Your task to perform on an android device: What's on my calendar tomorrow? Image 0: 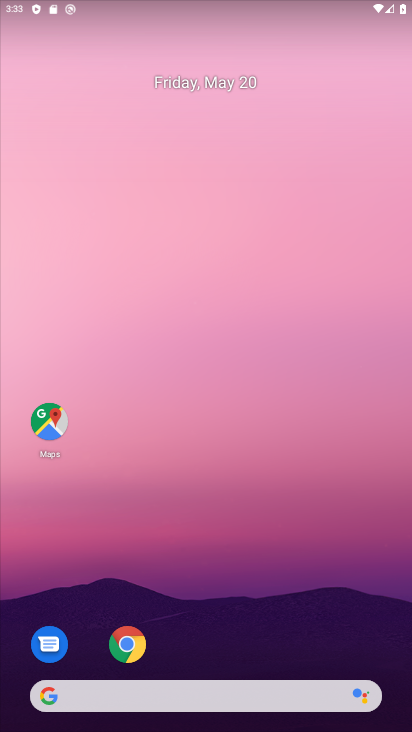
Step 0: drag from (323, 420) to (361, 170)
Your task to perform on an android device: What's on my calendar tomorrow? Image 1: 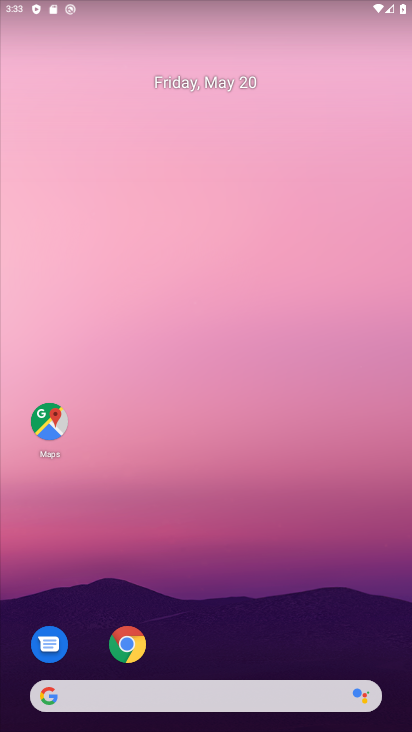
Step 1: drag from (241, 618) to (305, 148)
Your task to perform on an android device: What's on my calendar tomorrow? Image 2: 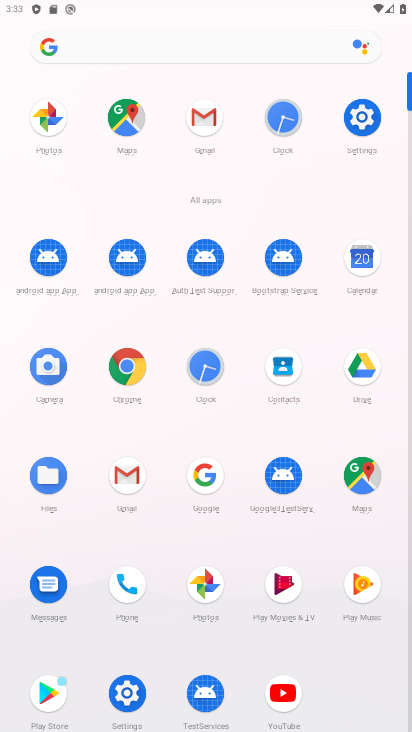
Step 2: click (364, 258)
Your task to perform on an android device: What's on my calendar tomorrow? Image 3: 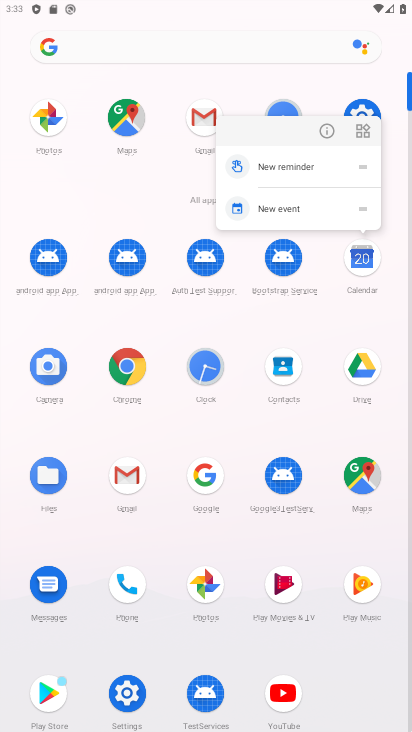
Step 3: click (365, 268)
Your task to perform on an android device: What's on my calendar tomorrow? Image 4: 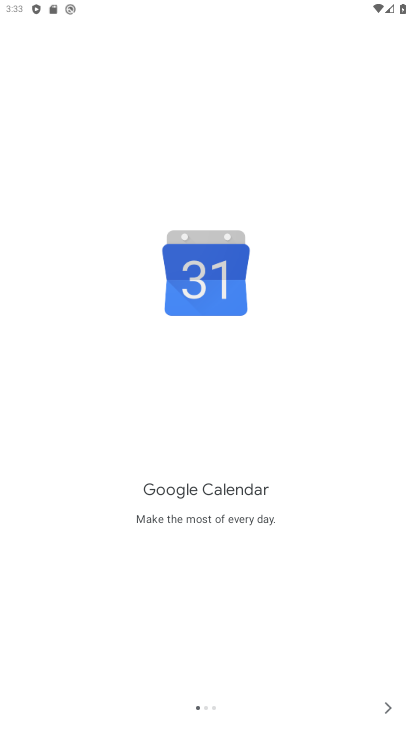
Step 4: click (384, 712)
Your task to perform on an android device: What's on my calendar tomorrow? Image 5: 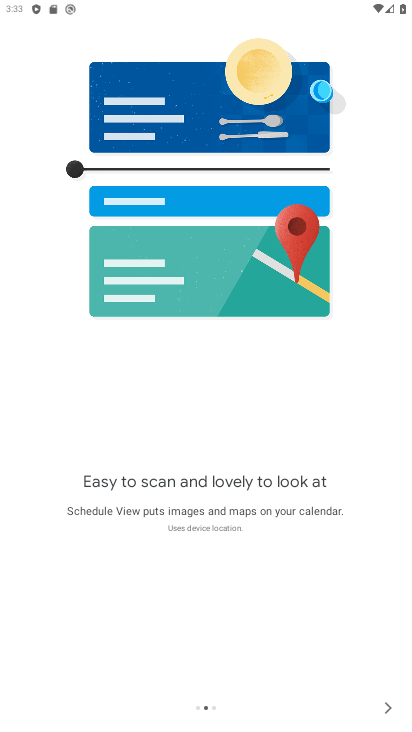
Step 5: click (384, 712)
Your task to perform on an android device: What's on my calendar tomorrow? Image 6: 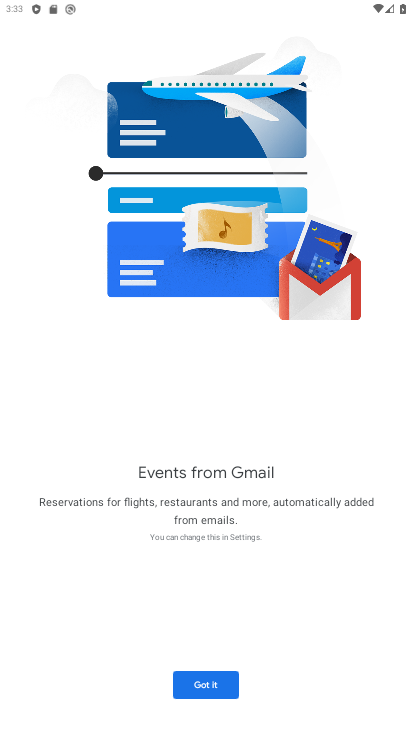
Step 6: click (215, 690)
Your task to perform on an android device: What's on my calendar tomorrow? Image 7: 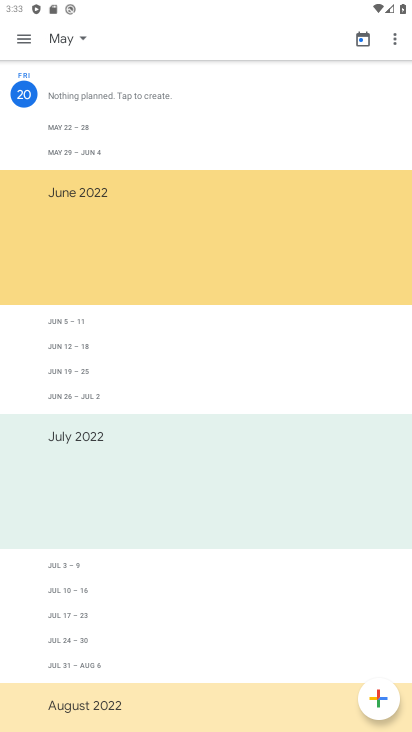
Step 7: click (66, 41)
Your task to perform on an android device: What's on my calendar tomorrow? Image 8: 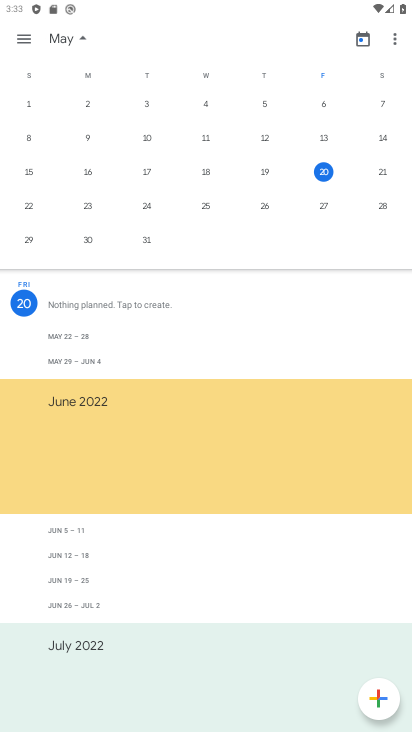
Step 8: click (380, 179)
Your task to perform on an android device: What's on my calendar tomorrow? Image 9: 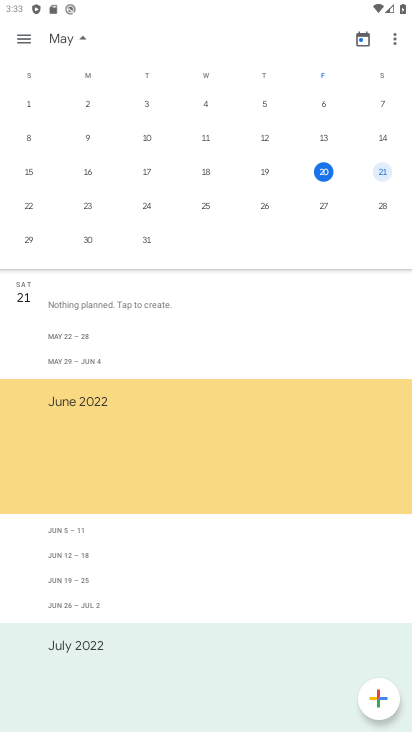
Step 9: task complete